Your task to perform on an android device: set the timer Image 0: 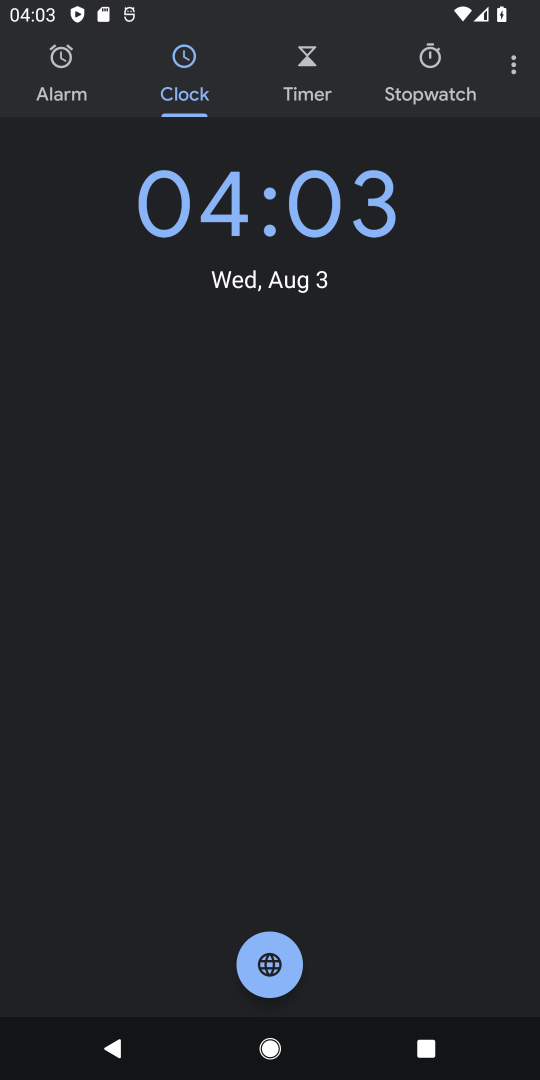
Step 0: click (298, 79)
Your task to perform on an android device: set the timer Image 1: 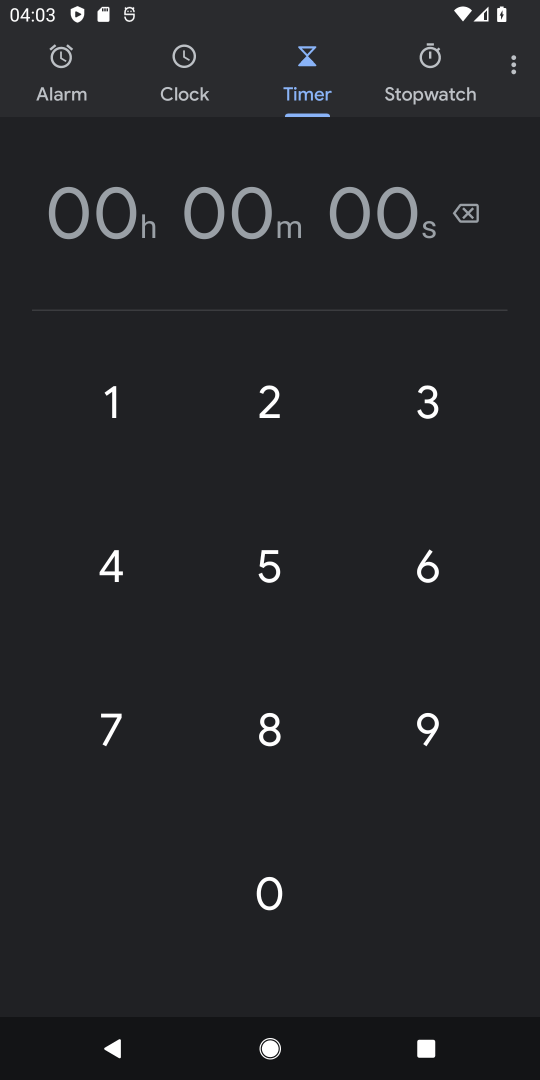
Step 1: click (116, 399)
Your task to perform on an android device: set the timer Image 2: 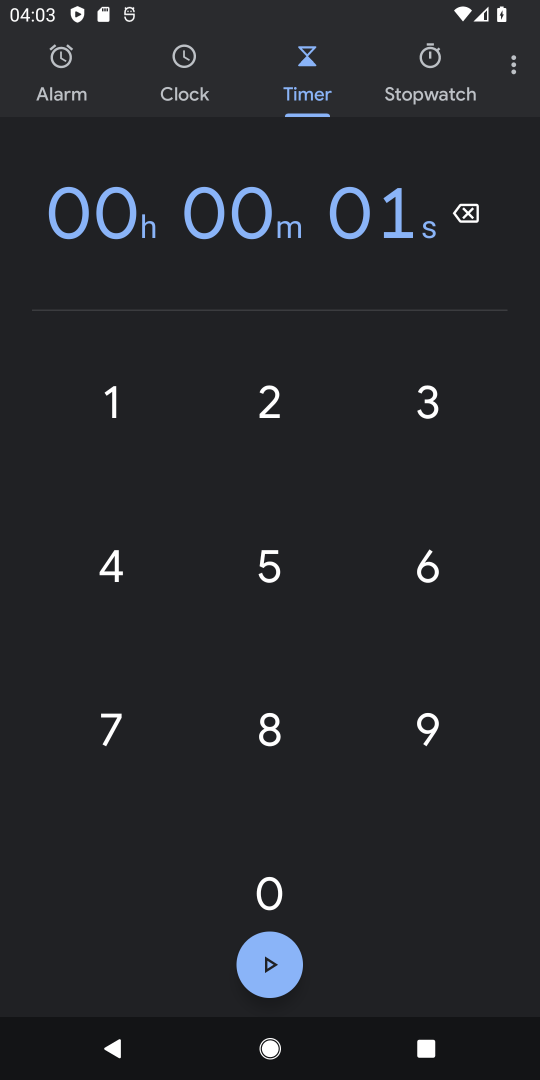
Step 2: click (431, 397)
Your task to perform on an android device: set the timer Image 3: 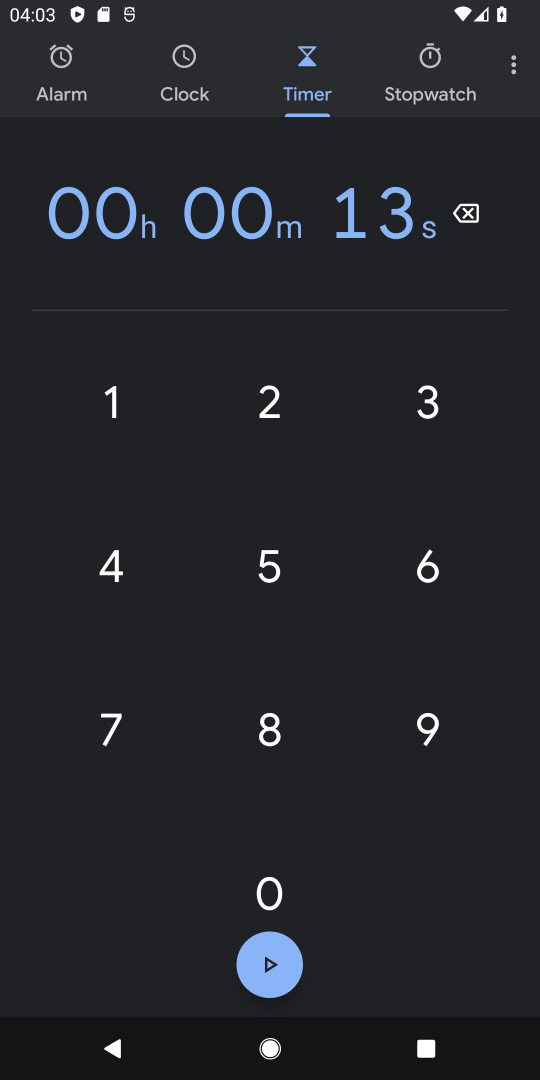
Step 3: click (268, 882)
Your task to perform on an android device: set the timer Image 4: 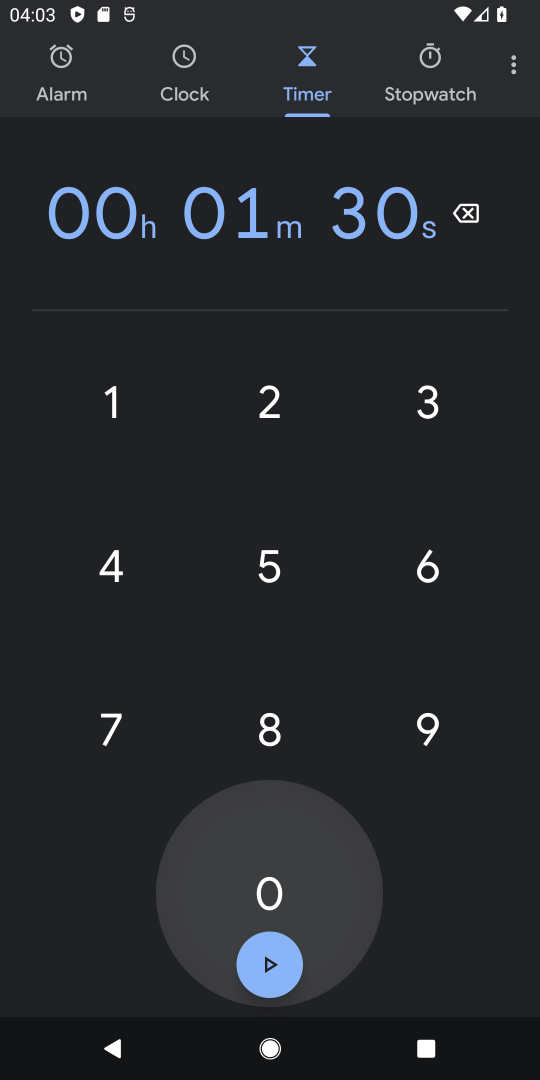
Step 4: click (268, 882)
Your task to perform on an android device: set the timer Image 5: 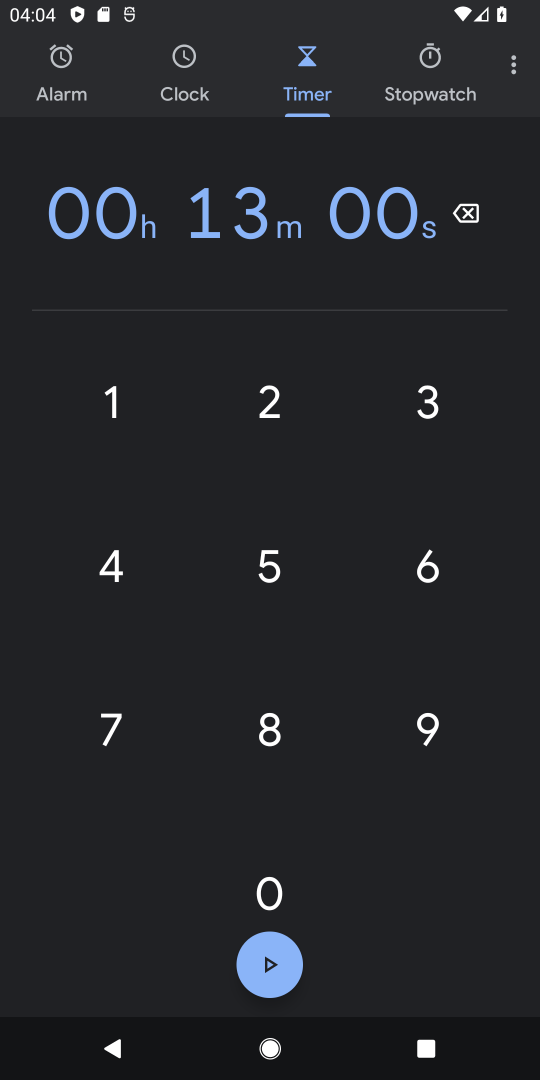
Step 5: click (268, 882)
Your task to perform on an android device: set the timer Image 6: 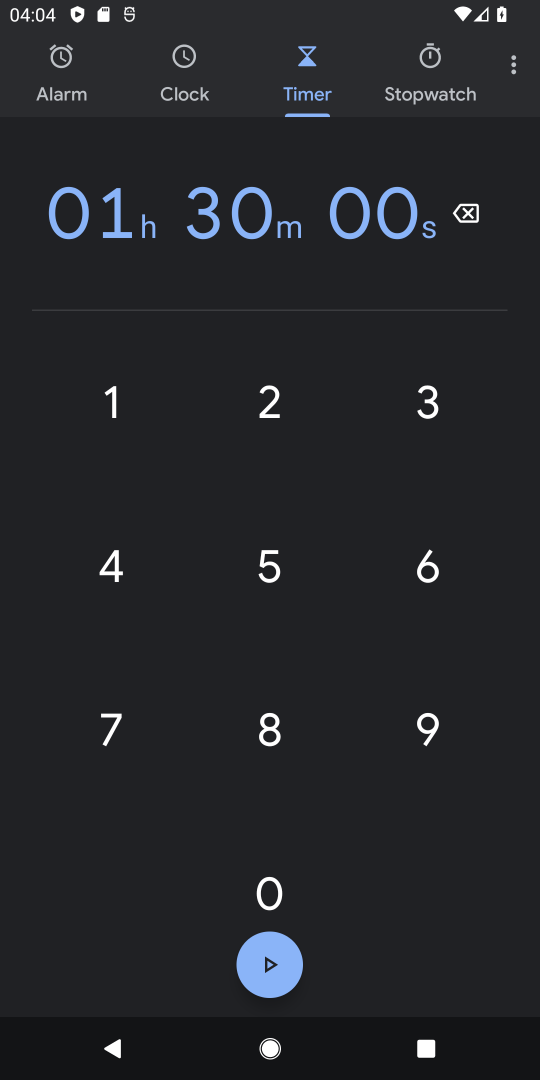
Step 6: task complete